Your task to perform on an android device: Search for "razer huntsman" on costco.com, select the first entry, add it to the cart, then select checkout. Image 0: 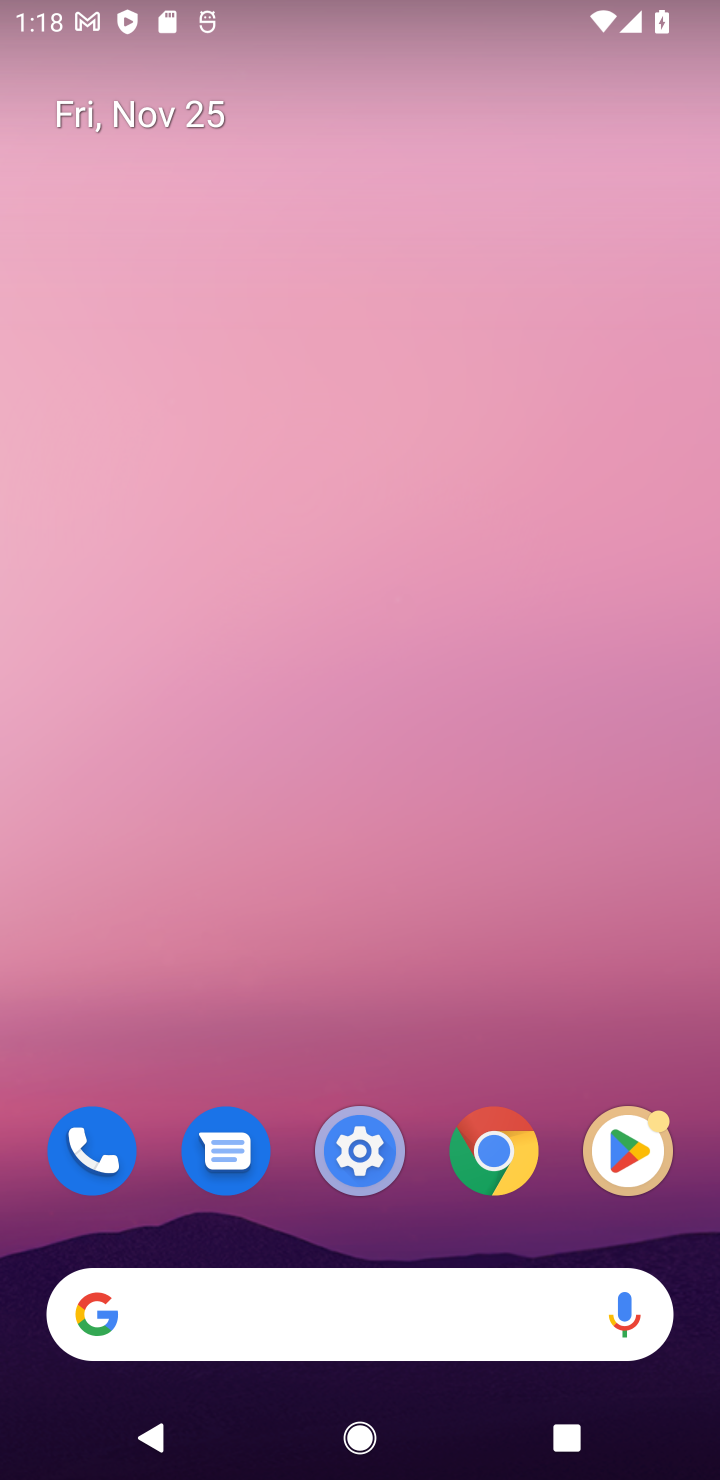
Step 0: click (257, 1309)
Your task to perform on an android device: Search for "razer huntsman" on costco.com, select the first entry, add it to the cart, then select checkout. Image 1: 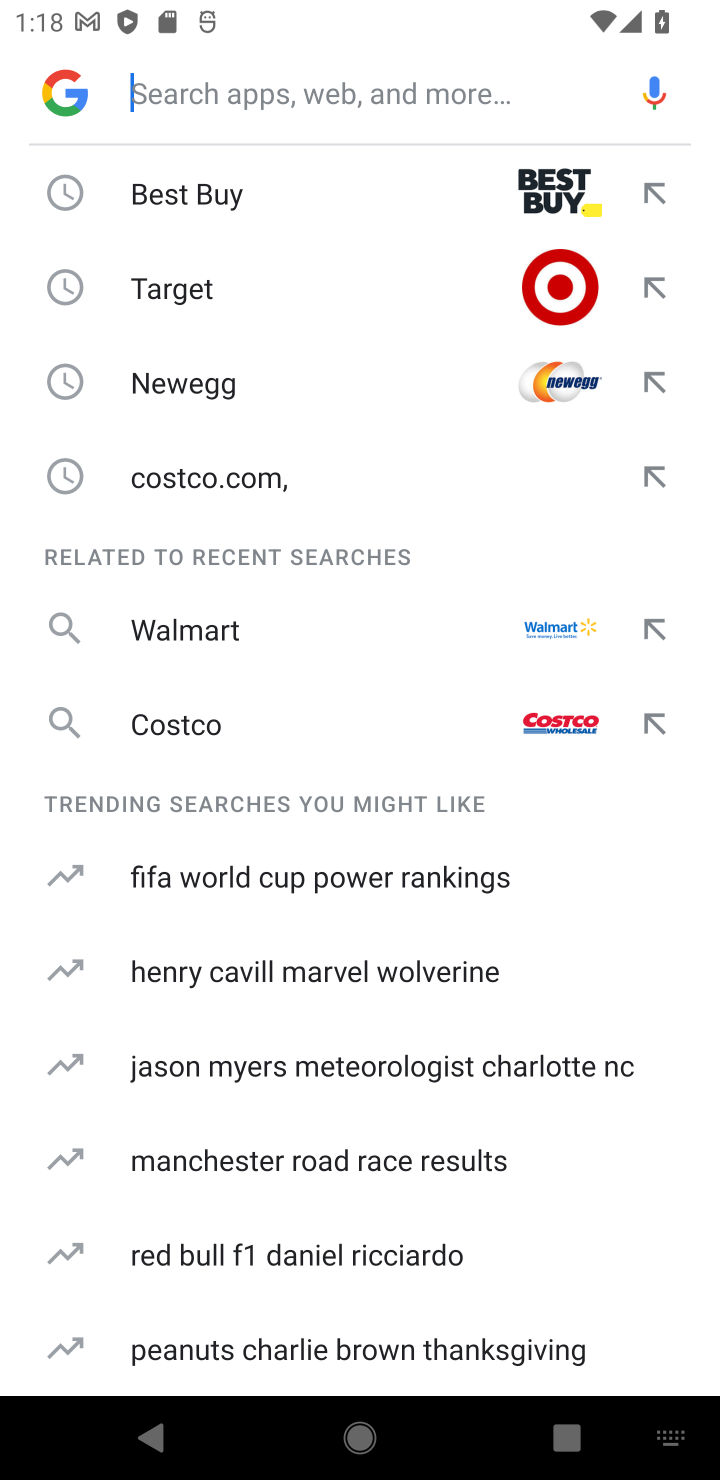
Step 1: type "razer huntsman"
Your task to perform on an android device: Search for "razer huntsman" on costco.com, select the first entry, add it to the cart, then select checkout. Image 2: 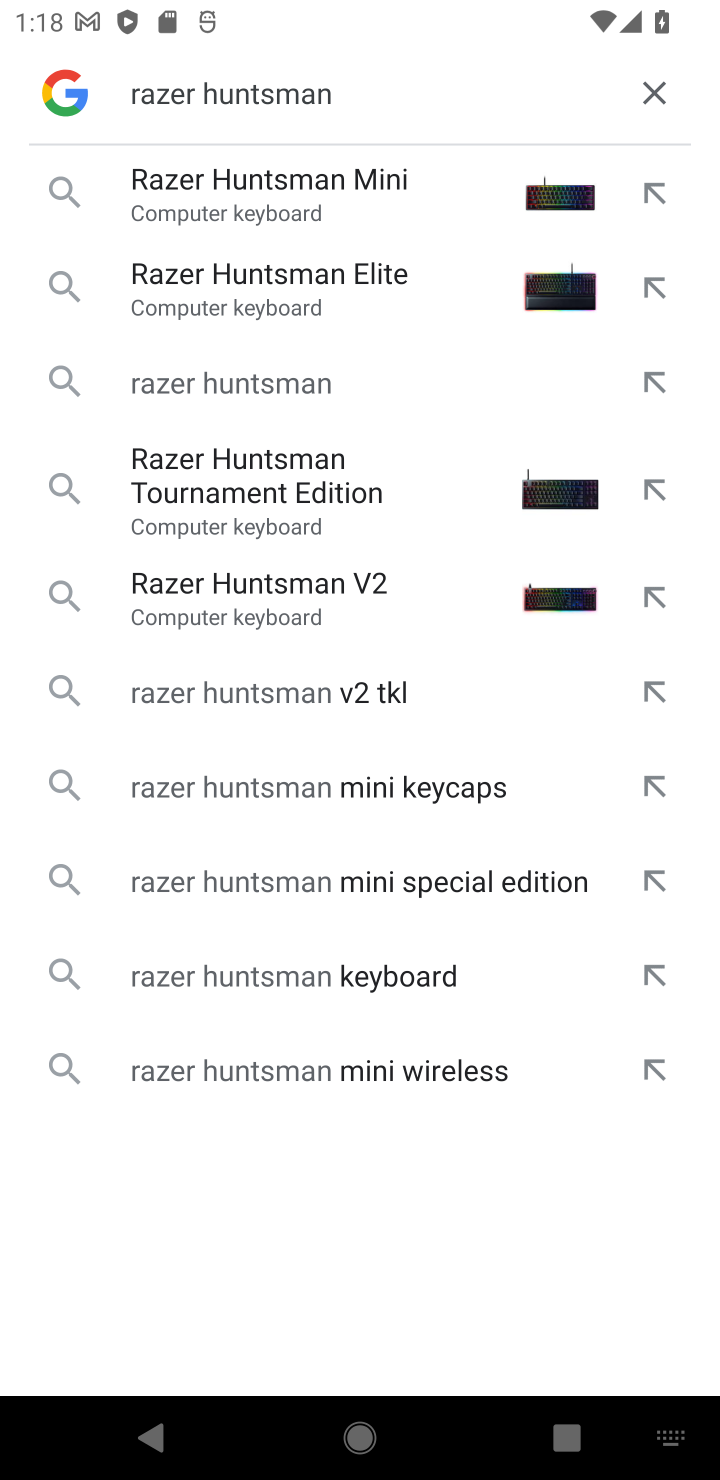
Step 2: click (156, 219)
Your task to perform on an android device: Search for "razer huntsman" on costco.com, select the first entry, add it to the cart, then select checkout. Image 3: 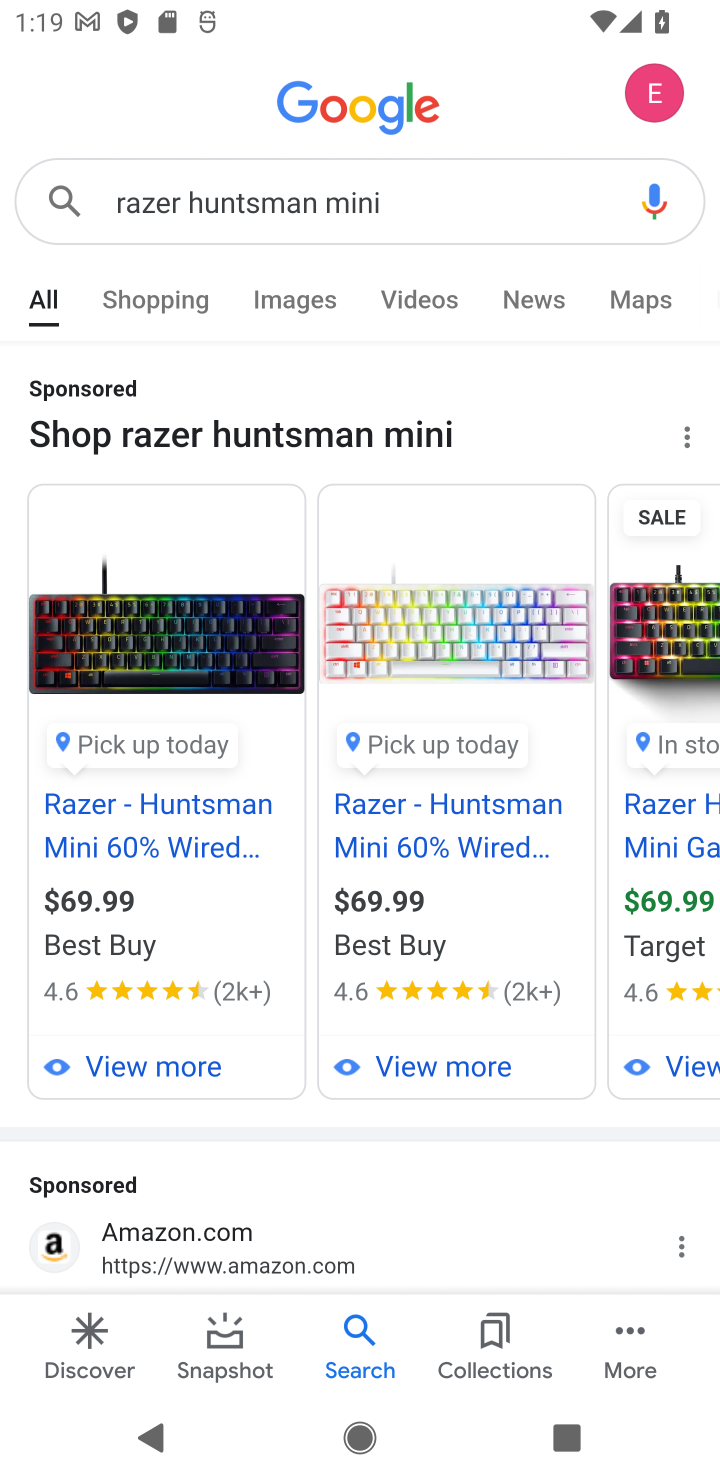
Step 3: task complete